Your task to perform on an android device: Do I have any events this weekend? Image 0: 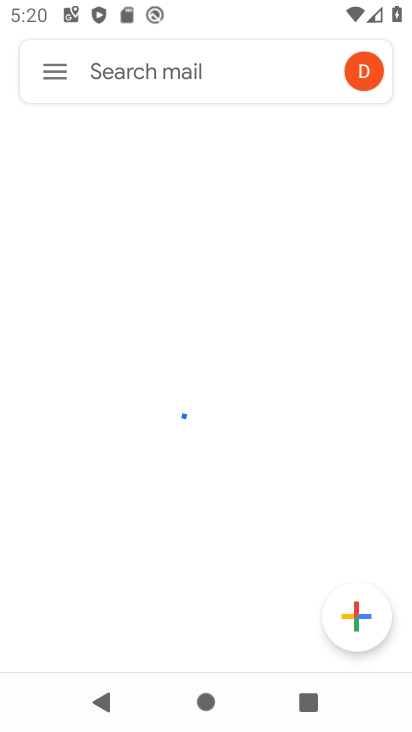
Step 0: press home button
Your task to perform on an android device: Do I have any events this weekend? Image 1: 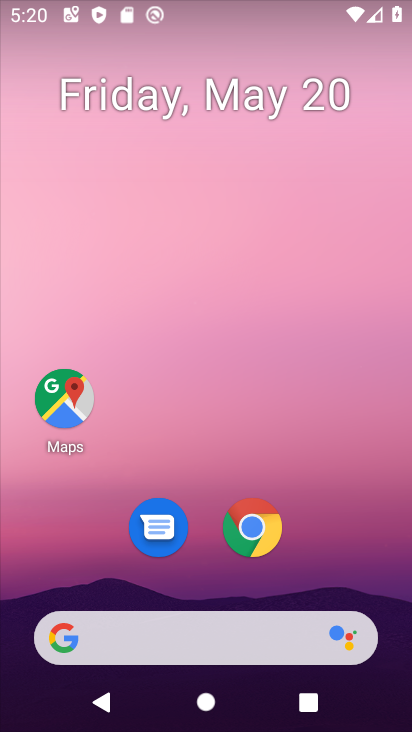
Step 1: drag from (205, 623) to (210, 22)
Your task to perform on an android device: Do I have any events this weekend? Image 2: 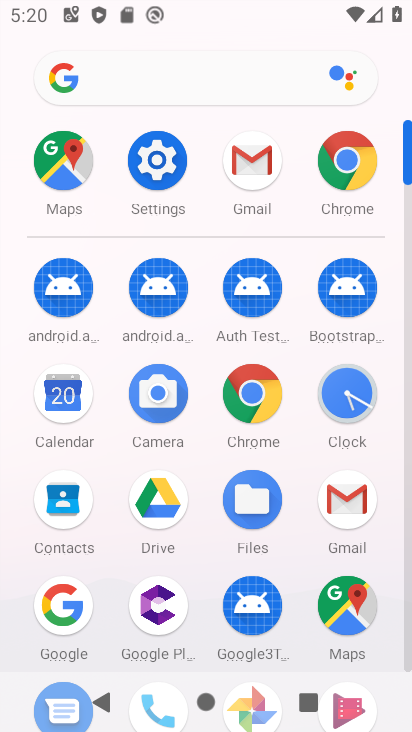
Step 2: click (49, 398)
Your task to perform on an android device: Do I have any events this weekend? Image 3: 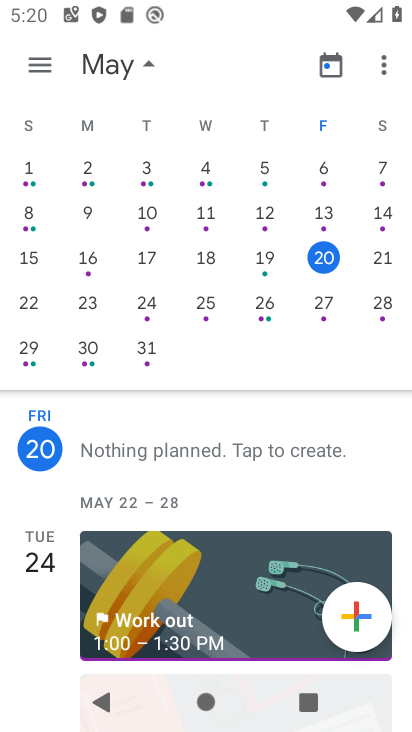
Step 3: click (396, 256)
Your task to perform on an android device: Do I have any events this weekend? Image 4: 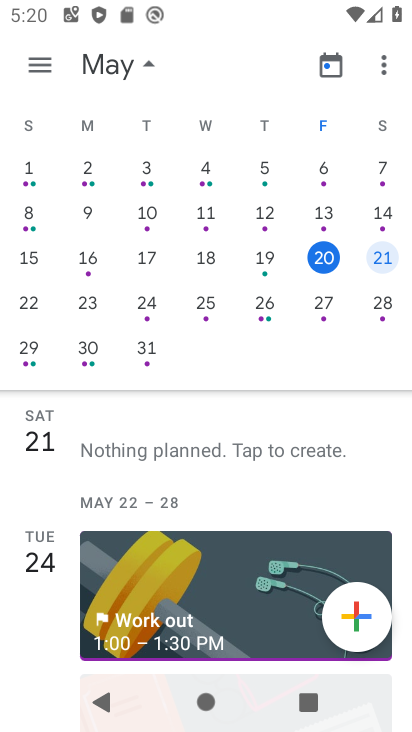
Step 4: task complete